Your task to perform on an android device: check android version Image 0: 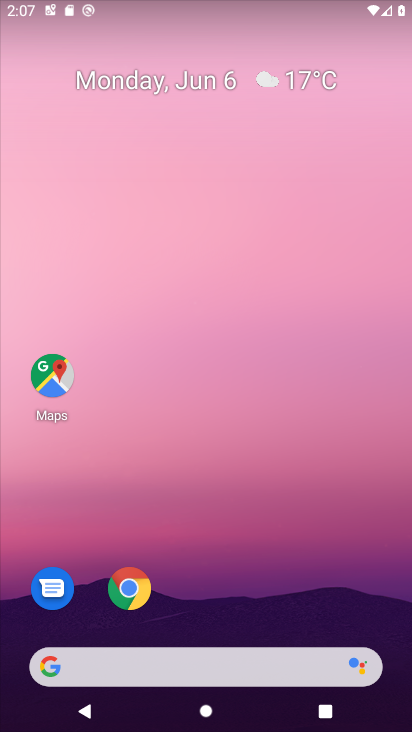
Step 0: drag from (284, 692) to (39, 4)
Your task to perform on an android device: check android version Image 1: 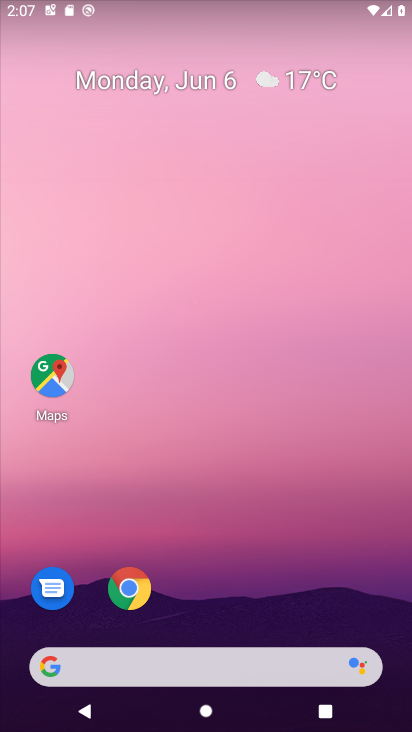
Step 1: drag from (240, 678) to (394, 282)
Your task to perform on an android device: check android version Image 2: 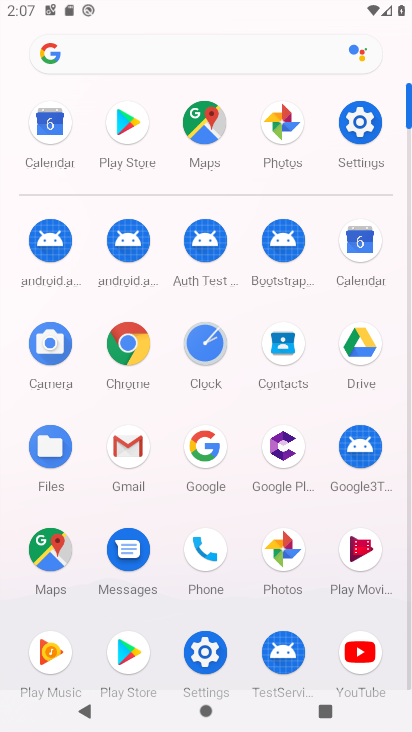
Step 2: click (363, 121)
Your task to perform on an android device: check android version Image 3: 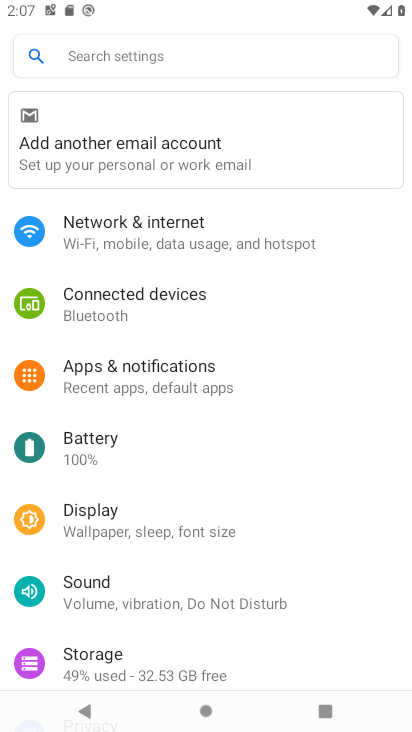
Step 3: drag from (274, 555) to (347, 37)
Your task to perform on an android device: check android version Image 4: 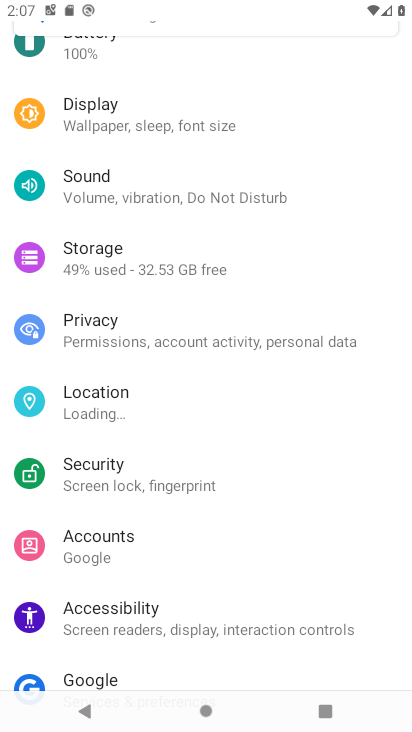
Step 4: drag from (246, 614) to (302, 105)
Your task to perform on an android device: check android version Image 5: 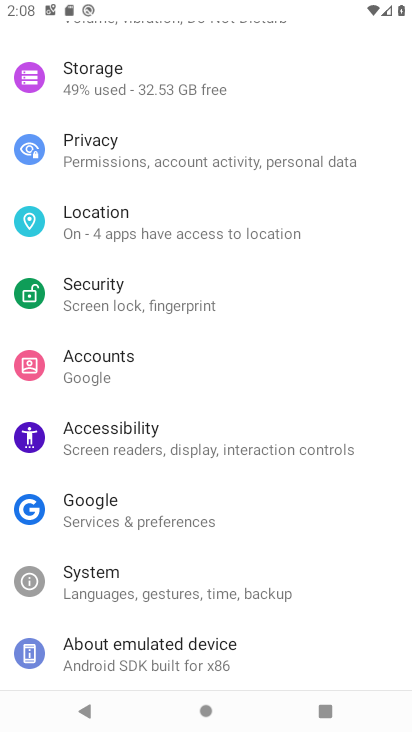
Step 5: click (186, 655)
Your task to perform on an android device: check android version Image 6: 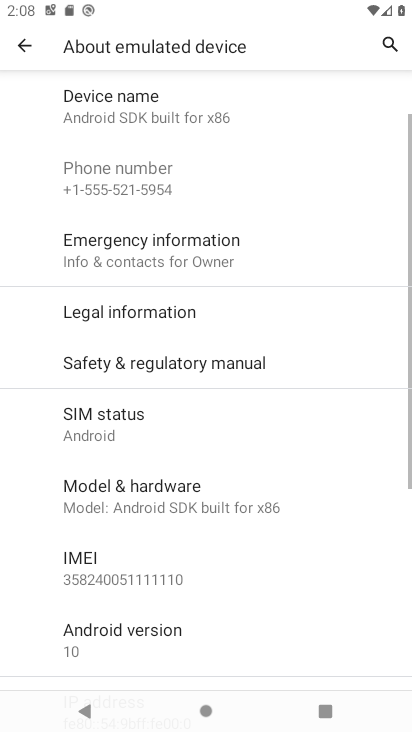
Step 6: task complete